Your task to perform on an android device: Open Google Chrome Image 0: 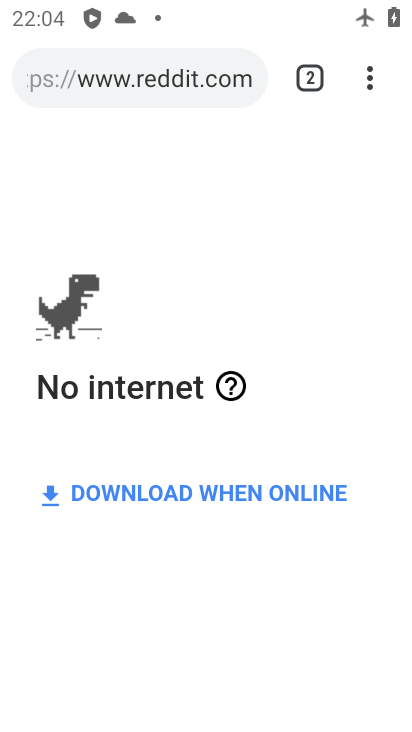
Step 0: task complete